Your task to perform on an android device: open app "DuckDuckGo Privacy Browser" (install if not already installed) Image 0: 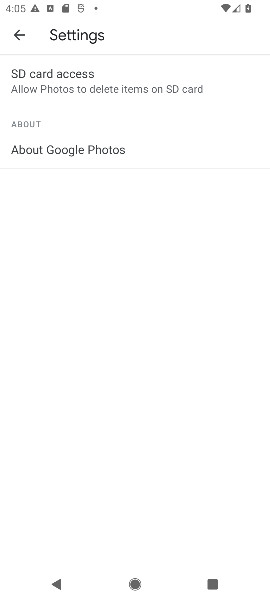
Step 0: press home button
Your task to perform on an android device: open app "DuckDuckGo Privacy Browser" (install if not already installed) Image 1: 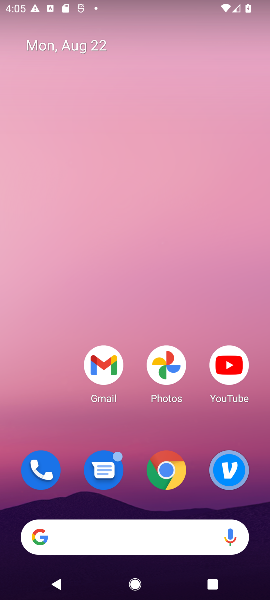
Step 1: drag from (112, 545) to (153, 298)
Your task to perform on an android device: open app "DuckDuckGo Privacy Browser" (install if not already installed) Image 2: 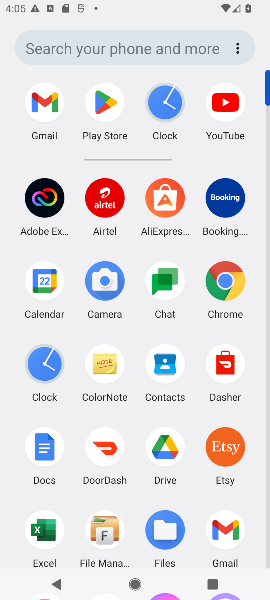
Step 2: click (100, 104)
Your task to perform on an android device: open app "DuckDuckGo Privacy Browser" (install if not already installed) Image 3: 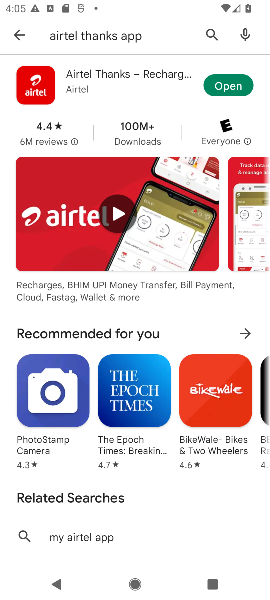
Step 3: click (22, 31)
Your task to perform on an android device: open app "DuckDuckGo Privacy Browser" (install if not already installed) Image 4: 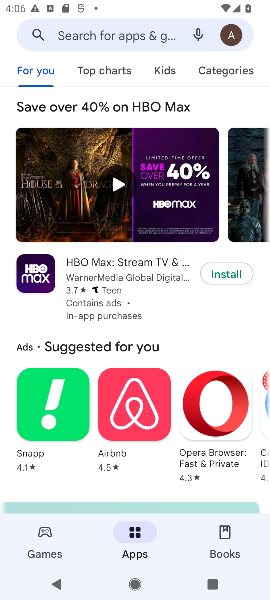
Step 4: click (124, 23)
Your task to perform on an android device: open app "DuckDuckGo Privacy Browser" (install if not already installed) Image 5: 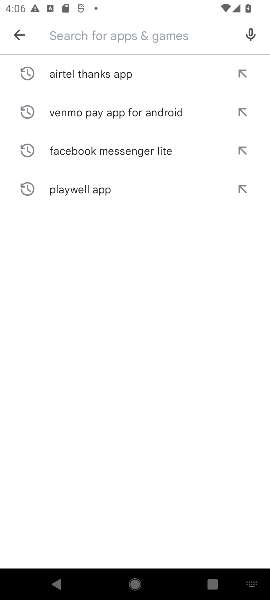
Step 5: type "DuckDuckGo Privacy Browser "
Your task to perform on an android device: open app "DuckDuckGo Privacy Browser" (install if not already installed) Image 6: 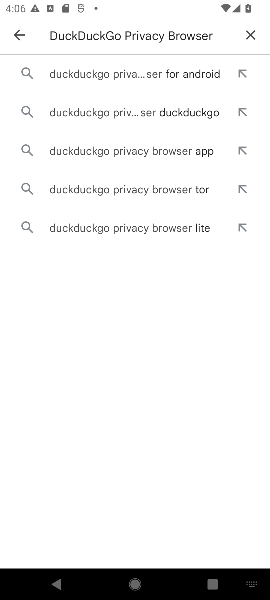
Step 6: click (96, 77)
Your task to perform on an android device: open app "DuckDuckGo Privacy Browser" (install if not already installed) Image 7: 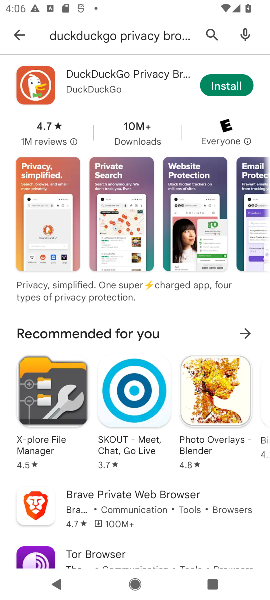
Step 7: click (232, 74)
Your task to perform on an android device: open app "DuckDuckGo Privacy Browser" (install if not already installed) Image 8: 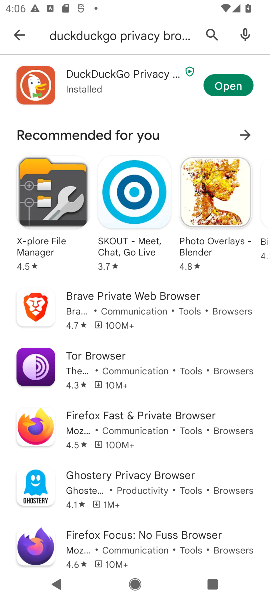
Step 8: click (220, 80)
Your task to perform on an android device: open app "DuckDuckGo Privacy Browser" (install if not already installed) Image 9: 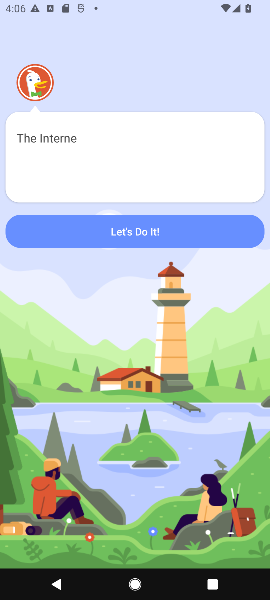
Step 9: task complete